Your task to perform on an android device: Is it going to rain tomorrow? Image 0: 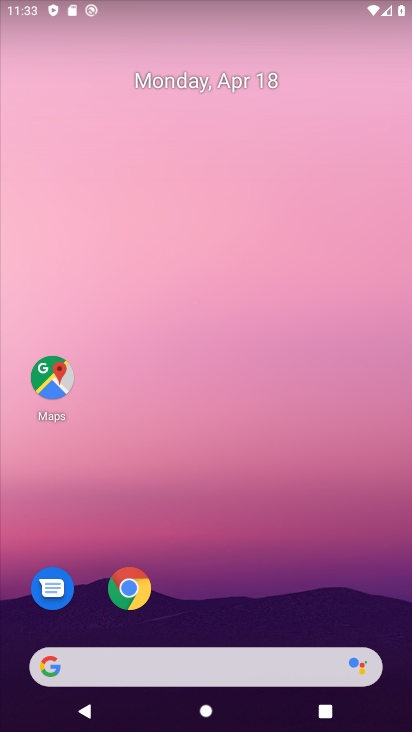
Step 0: drag from (369, 594) to (184, 33)
Your task to perform on an android device: Is it going to rain tomorrow? Image 1: 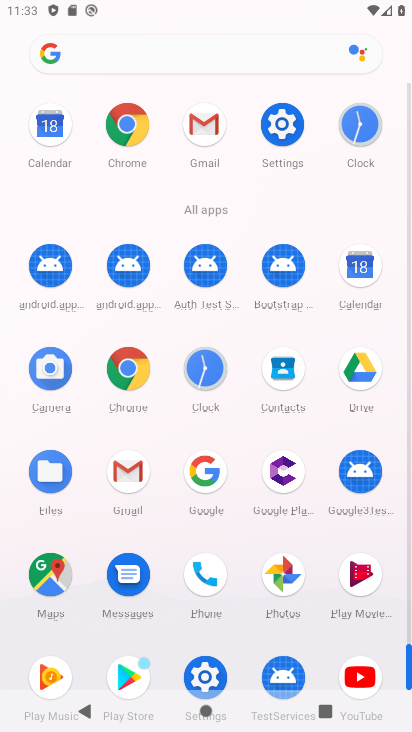
Step 1: drag from (12, 529) to (0, 297)
Your task to perform on an android device: Is it going to rain tomorrow? Image 2: 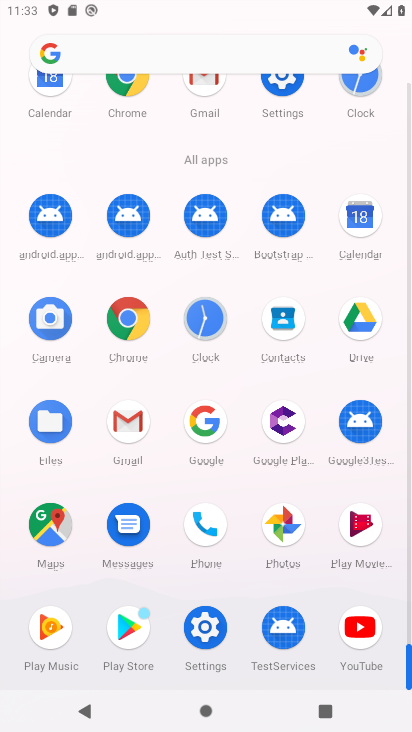
Step 2: drag from (0, 416) to (0, 192)
Your task to perform on an android device: Is it going to rain tomorrow? Image 3: 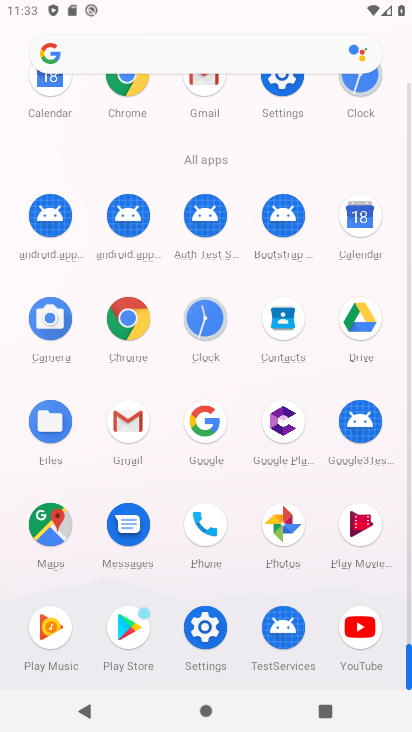
Step 3: drag from (0, 179) to (12, 353)
Your task to perform on an android device: Is it going to rain tomorrow? Image 4: 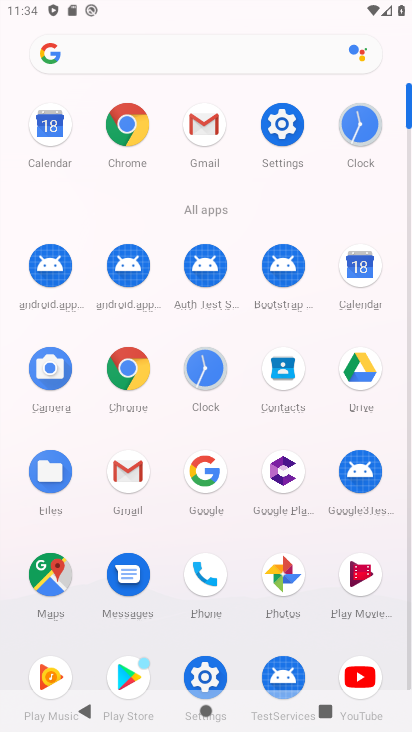
Step 4: drag from (18, 422) to (4, 213)
Your task to perform on an android device: Is it going to rain tomorrow? Image 5: 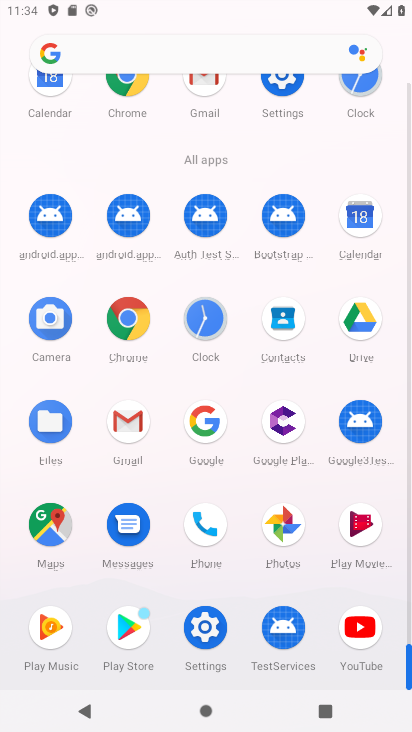
Step 5: click (212, 414)
Your task to perform on an android device: Is it going to rain tomorrow? Image 6: 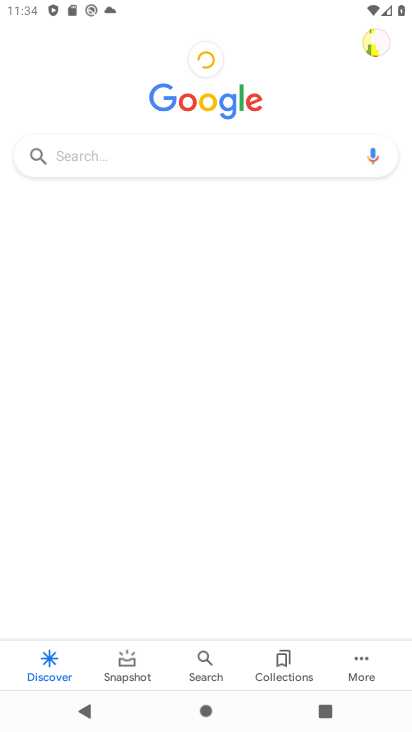
Step 6: click (137, 146)
Your task to perform on an android device: Is it going to rain tomorrow? Image 7: 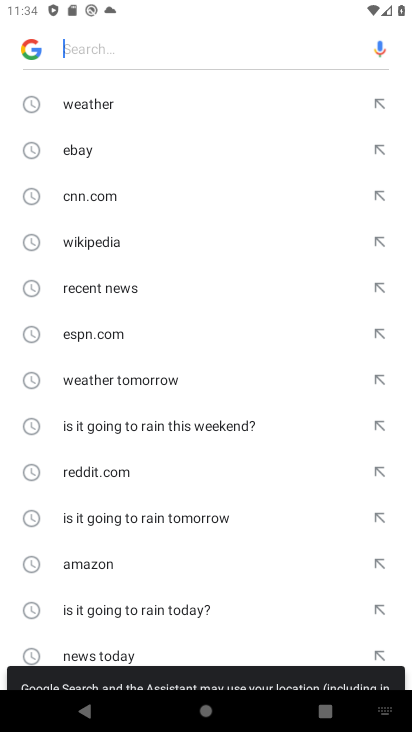
Step 7: click (95, 107)
Your task to perform on an android device: Is it going to rain tomorrow? Image 8: 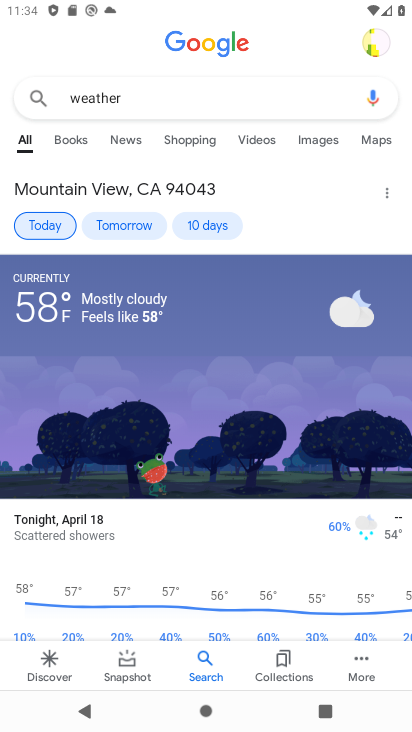
Step 8: click (126, 230)
Your task to perform on an android device: Is it going to rain tomorrow? Image 9: 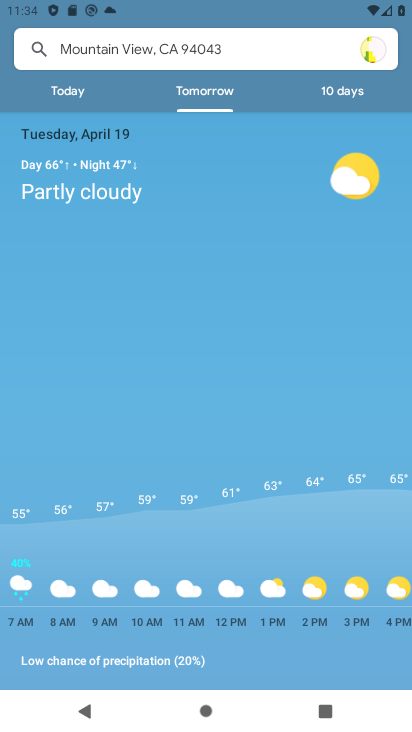
Step 9: task complete